Your task to perform on an android device: move a message to another label in the gmail app Image 0: 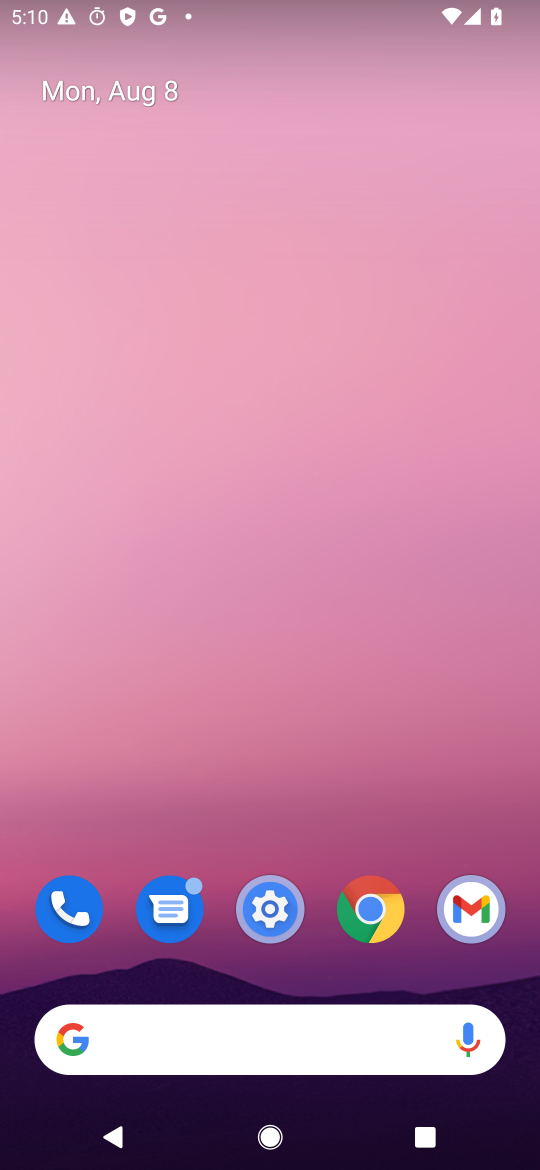
Step 0: click (469, 908)
Your task to perform on an android device: move a message to another label in the gmail app Image 1: 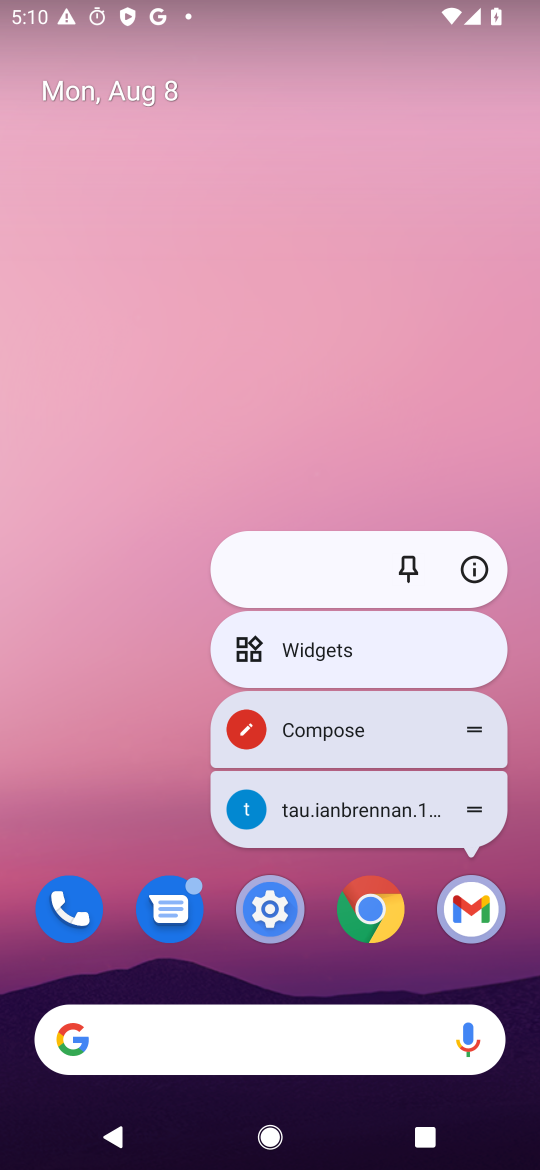
Step 1: click (469, 910)
Your task to perform on an android device: move a message to another label in the gmail app Image 2: 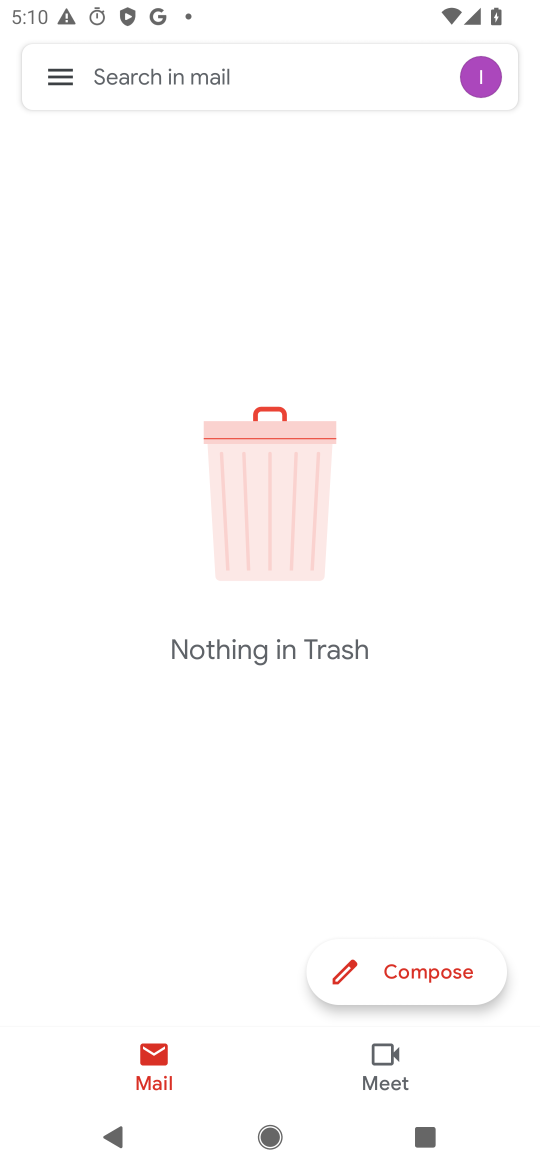
Step 2: click (52, 83)
Your task to perform on an android device: move a message to another label in the gmail app Image 3: 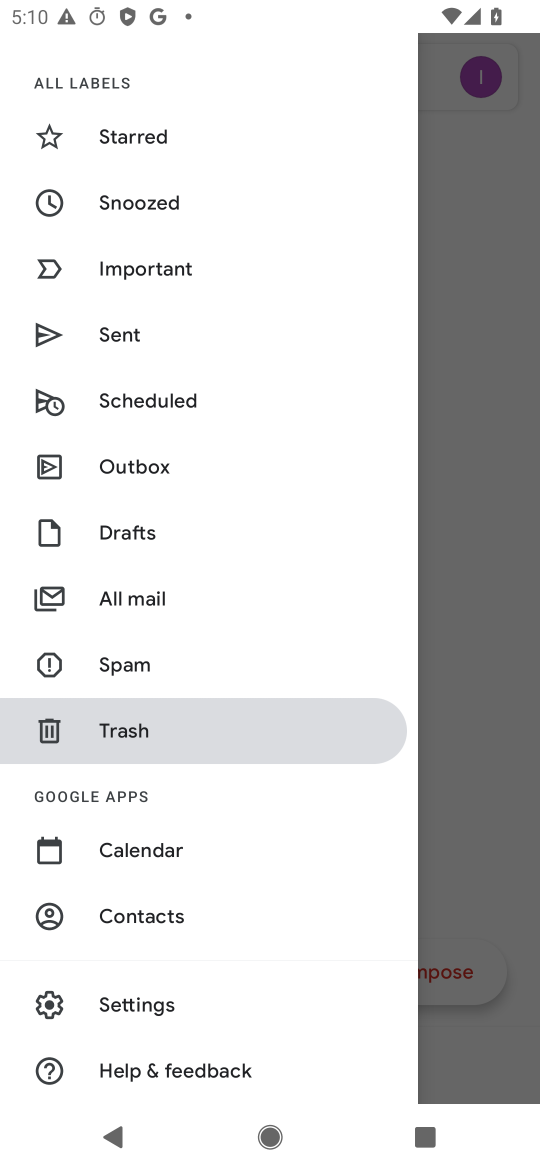
Step 3: click (178, 602)
Your task to perform on an android device: move a message to another label in the gmail app Image 4: 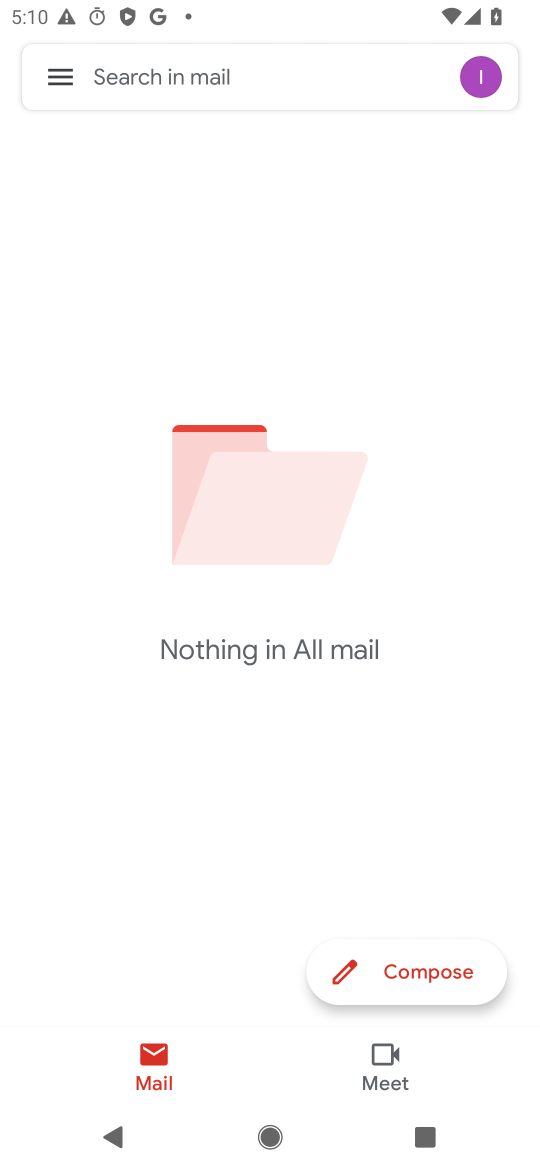
Step 4: task complete